Your task to perform on an android device: When is my next appointment? Image 0: 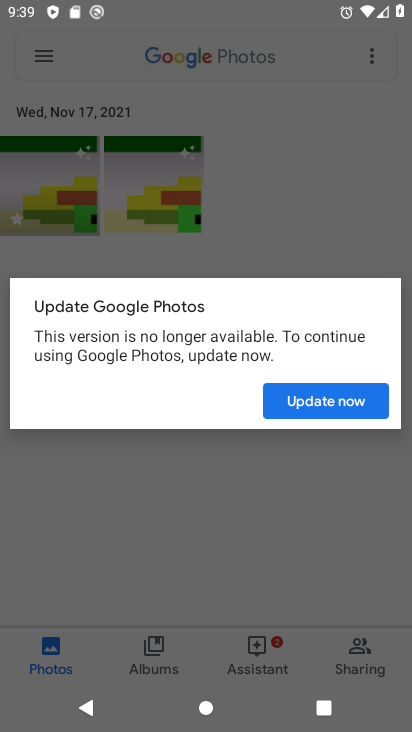
Step 0: press home button
Your task to perform on an android device: When is my next appointment? Image 1: 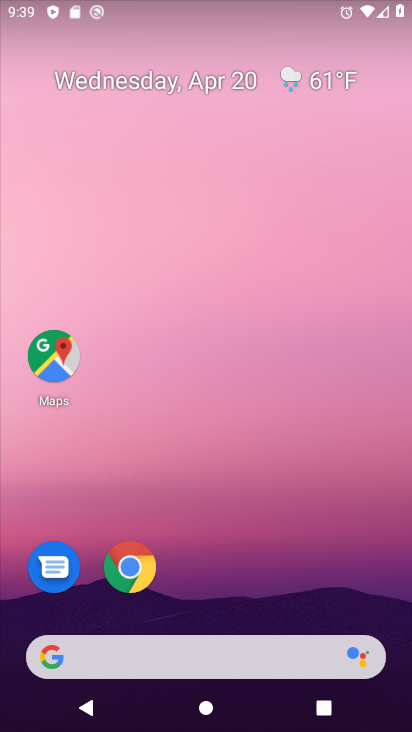
Step 1: drag from (212, 605) to (209, 136)
Your task to perform on an android device: When is my next appointment? Image 2: 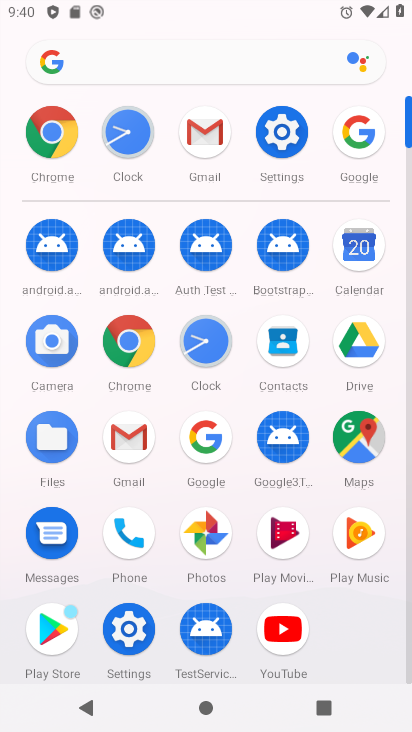
Step 2: click (355, 255)
Your task to perform on an android device: When is my next appointment? Image 3: 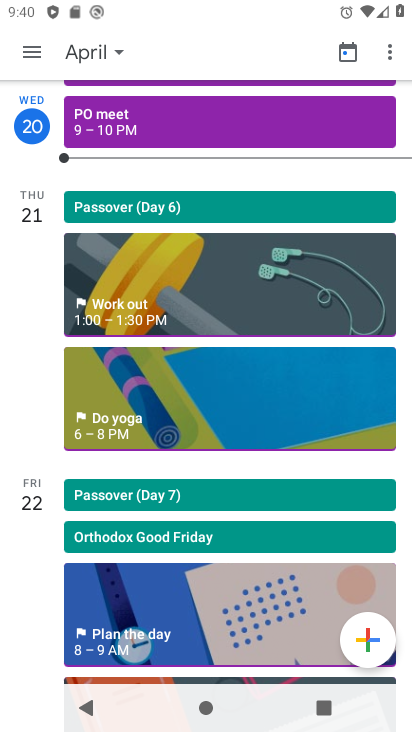
Step 3: click (96, 53)
Your task to perform on an android device: When is my next appointment? Image 4: 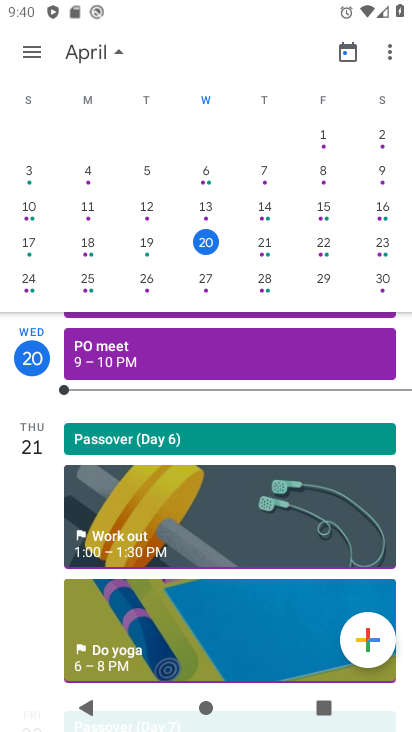
Step 4: click (260, 239)
Your task to perform on an android device: When is my next appointment? Image 5: 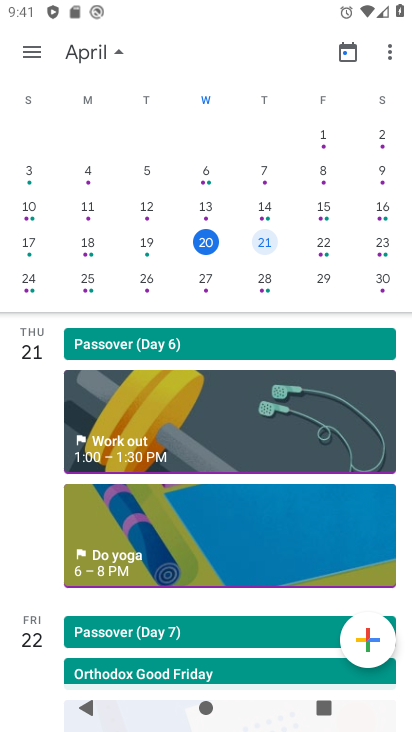
Step 5: click (256, 249)
Your task to perform on an android device: When is my next appointment? Image 6: 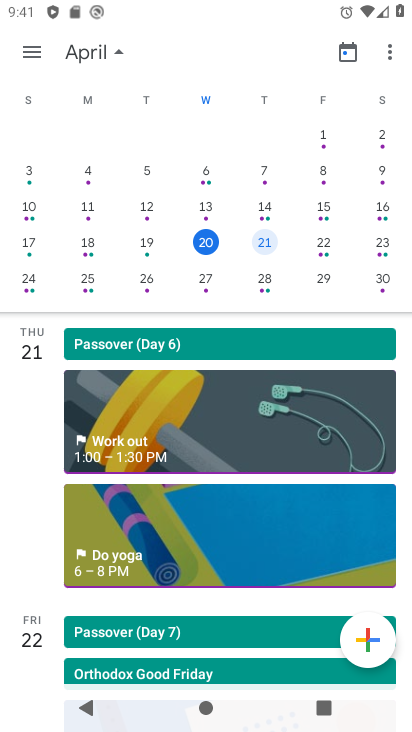
Step 6: click (323, 244)
Your task to perform on an android device: When is my next appointment? Image 7: 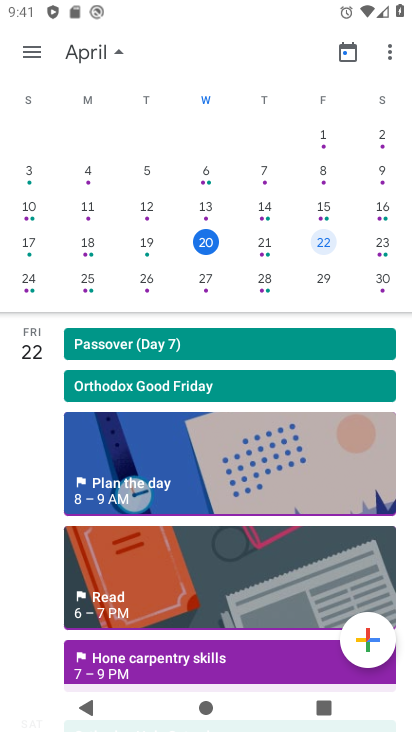
Step 7: click (375, 244)
Your task to perform on an android device: When is my next appointment? Image 8: 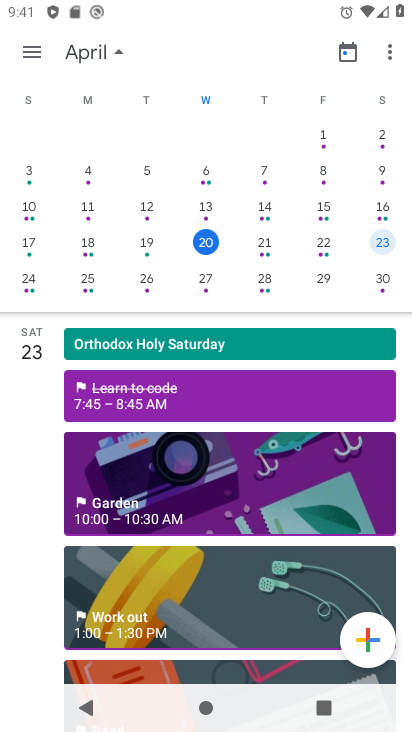
Step 8: task complete